Your task to perform on an android device: How much does the TCL TV cost? Image 0: 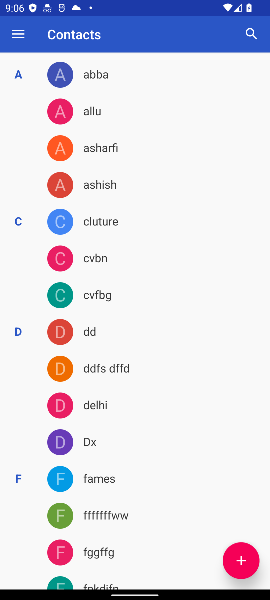
Step 0: press home button
Your task to perform on an android device: How much does the TCL TV cost? Image 1: 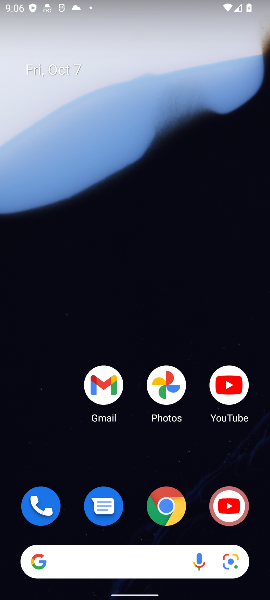
Step 1: click (162, 500)
Your task to perform on an android device: How much does the TCL TV cost? Image 2: 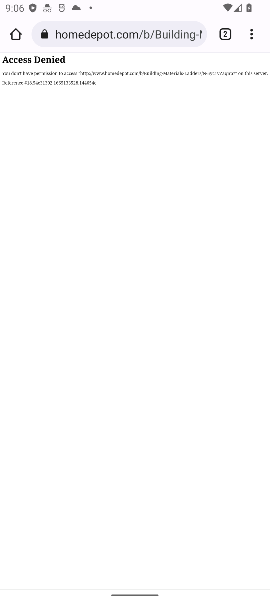
Step 2: click (146, 30)
Your task to perform on an android device: How much does the TCL TV cost? Image 3: 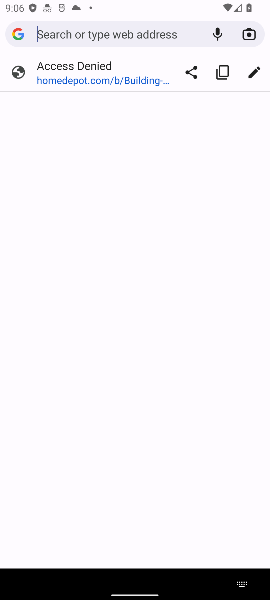
Step 3: type "How much does the TCL TV cost"
Your task to perform on an android device: How much does the TCL TV cost? Image 4: 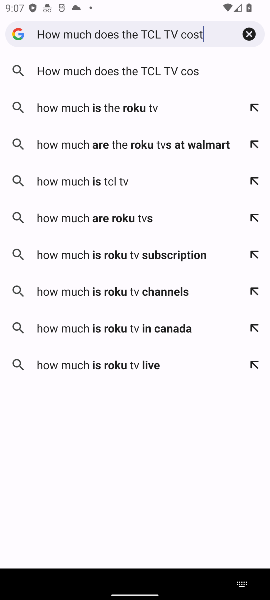
Step 4: press enter
Your task to perform on an android device: How much does the TCL TV cost? Image 5: 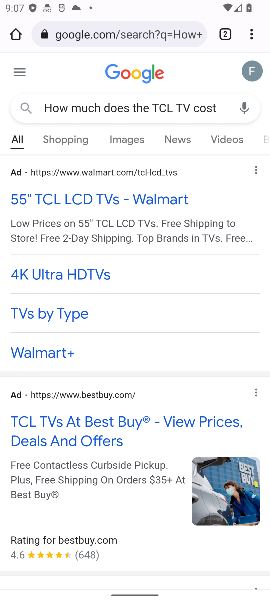
Step 5: click (79, 419)
Your task to perform on an android device: How much does the TCL TV cost? Image 6: 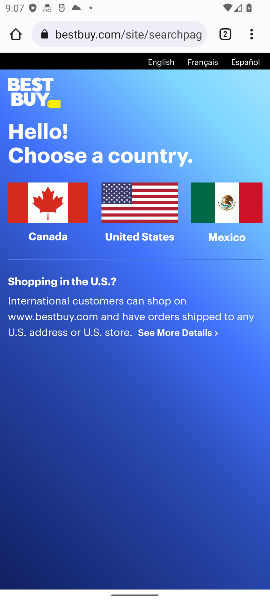
Step 6: click (154, 206)
Your task to perform on an android device: How much does the TCL TV cost? Image 7: 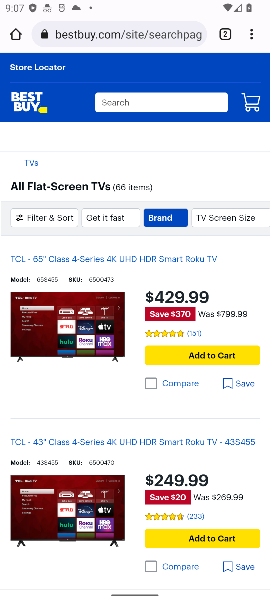
Step 7: drag from (133, 522) to (161, 249)
Your task to perform on an android device: How much does the TCL TV cost? Image 8: 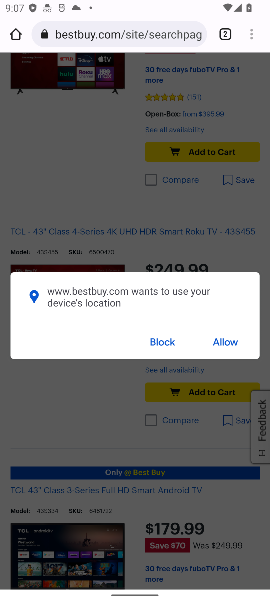
Step 8: click (149, 340)
Your task to perform on an android device: How much does the TCL TV cost? Image 9: 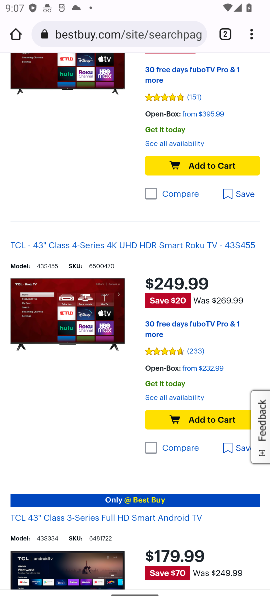
Step 9: task complete